Your task to perform on an android device: turn off data saver in the chrome app Image 0: 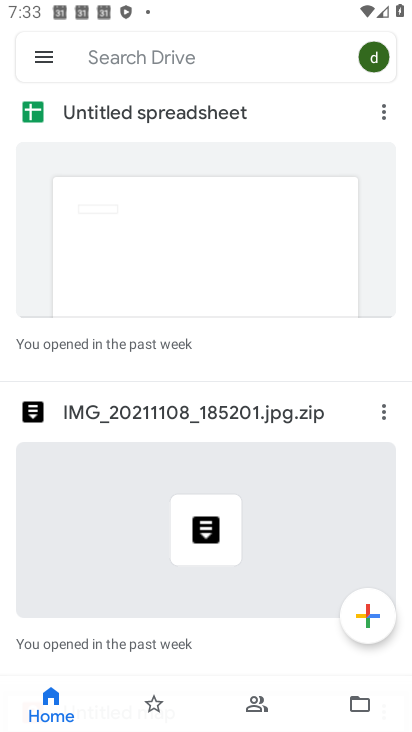
Step 0: press home button
Your task to perform on an android device: turn off data saver in the chrome app Image 1: 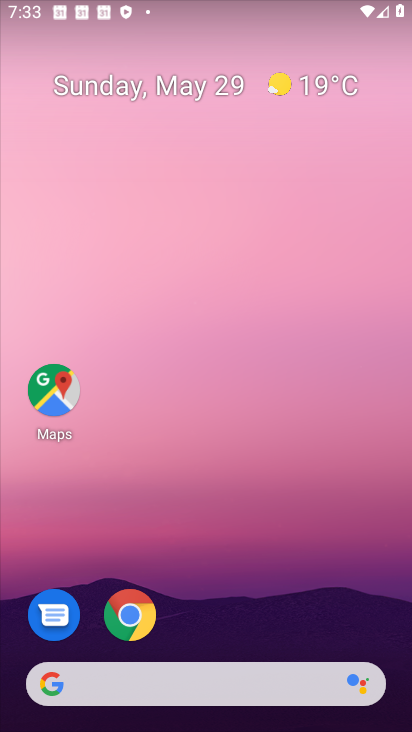
Step 1: click (112, 624)
Your task to perform on an android device: turn off data saver in the chrome app Image 2: 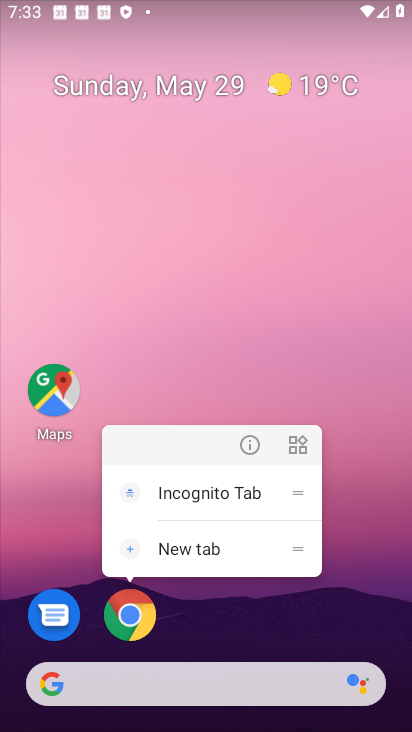
Step 2: click (112, 624)
Your task to perform on an android device: turn off data saver in the chrome app Image 3: 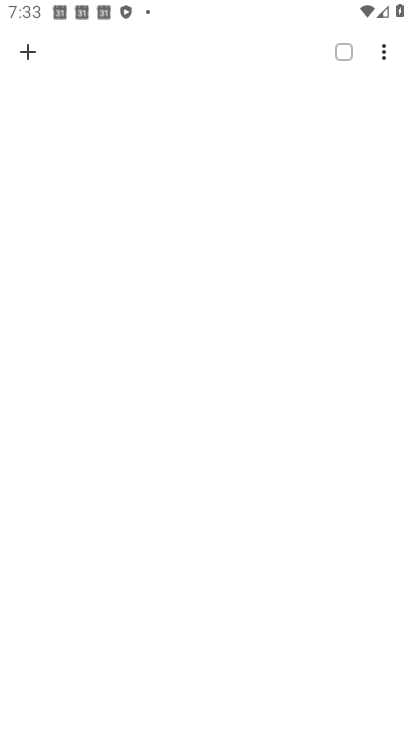
Step 3: click (386, 52)
Your task to perform on an android device: turn off data saver in the chrome app Image 4: 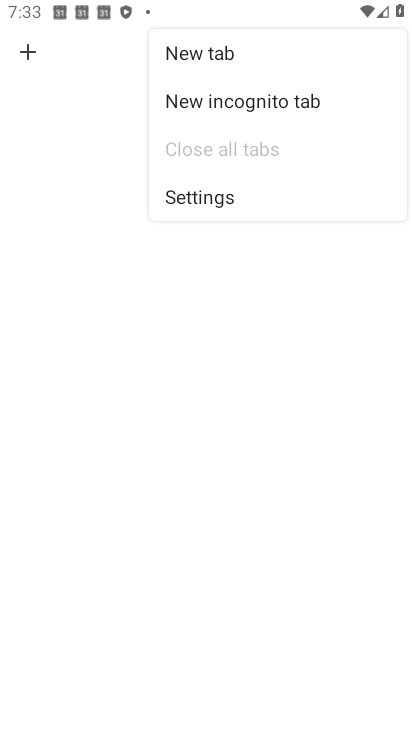
Step 4: click (228, 206)
Your task to perform on an android device: turn off data saver in the chrome app Image 5: 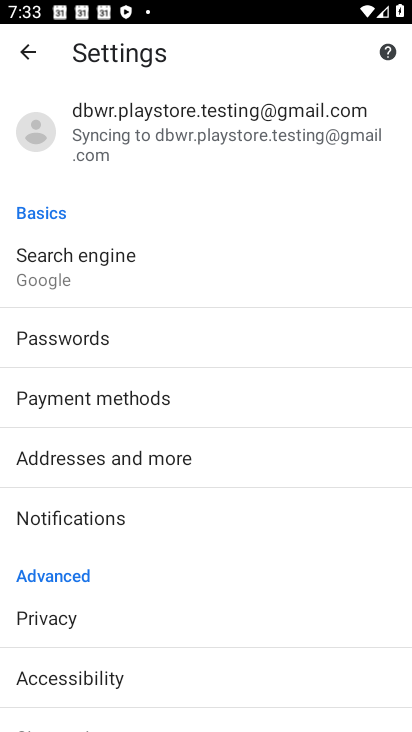
Step 5: drag from (220, 603) to (224, 220)
Your task to perform on an android device: turn off data saver in the chrome app Image 6: 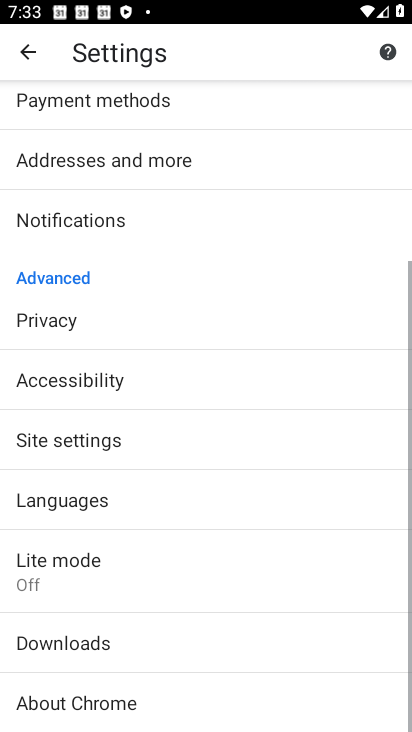
Step 6: drag from (205, 598) to (211, 440)
Your task to perform on an android device: turn off data saver in the chrome app Image 7: 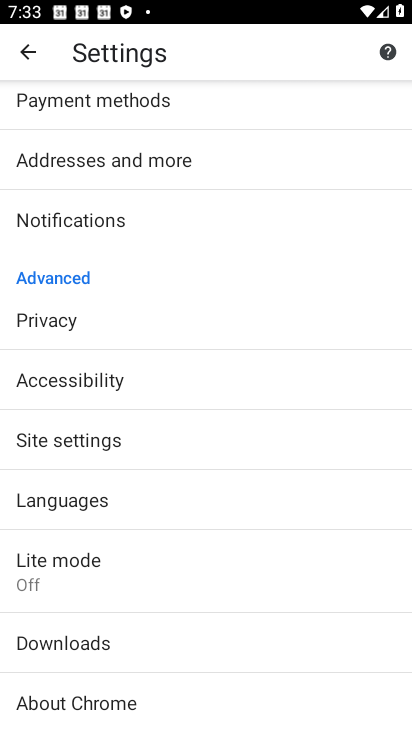
Step 7: click (116, 575)
Your task to perform on an android device: turn off data saver in the chrome app Image 8: 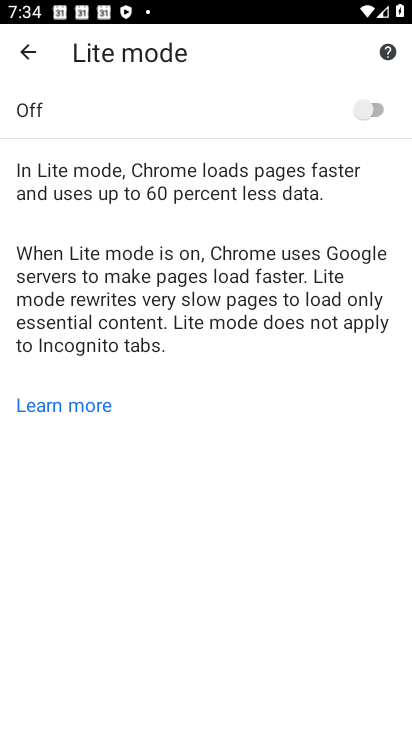
Step 8: task complete